Your task to perform on an android device: Go to Yahoo.com Image 0: 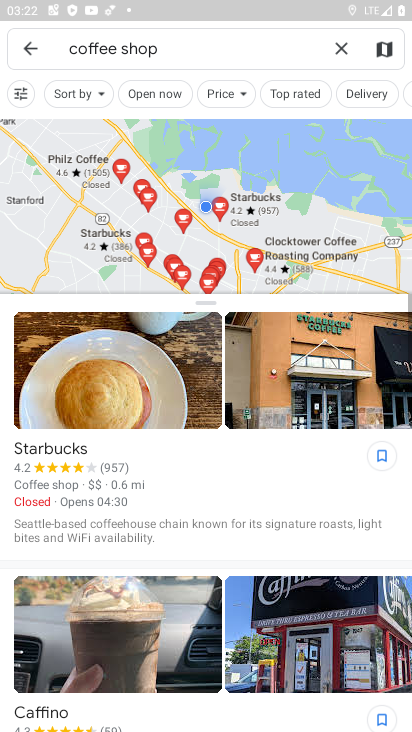
Step 0: press home button
Your task to perform on an android device: Go to Yahoo.com Image 1: 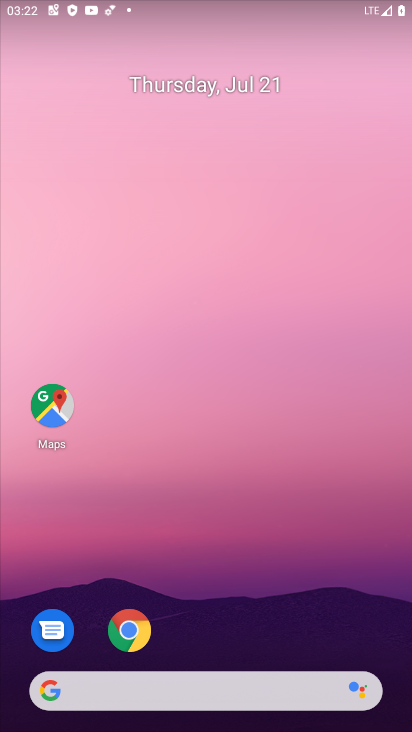
Step 1: click (133, 642)
Your task to perform on an android device: Go to Yahoo.com Image 2: 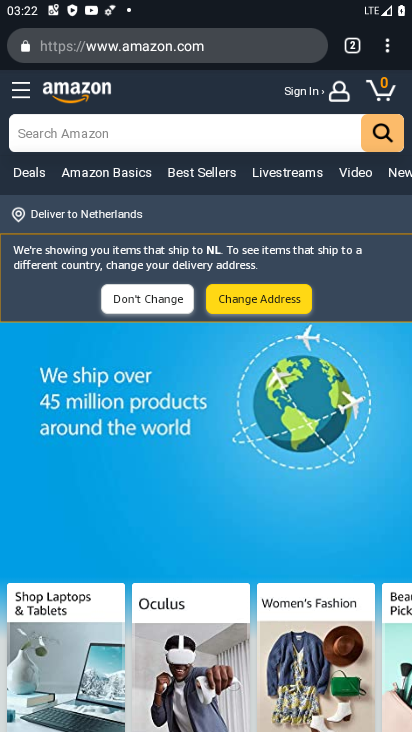
Step 2: click (348, 51)
Your task to perform on an android device: Go to Yahoo.com Image 3: 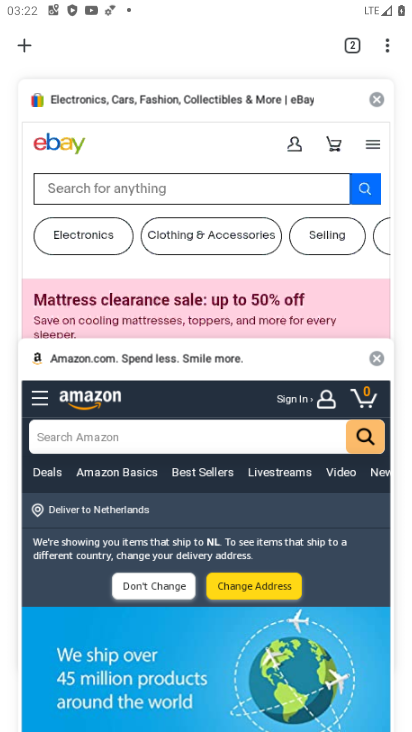
Step 3: click (22, 57)
Your task to perform on an android device: Go to Yahoo.com Image 4: 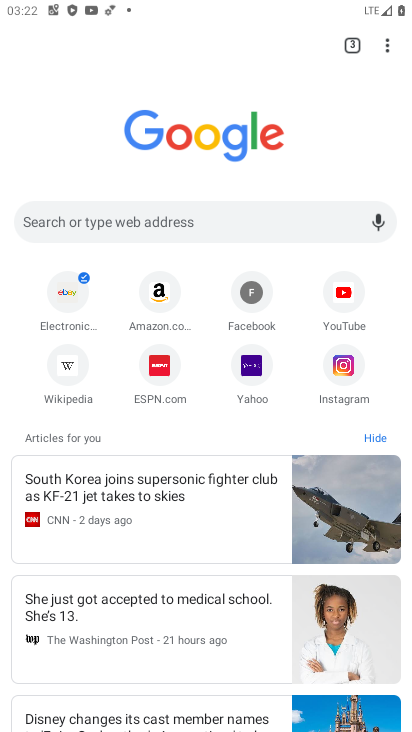
Step 4: click (253, 390)
Your task to perform on an android device: Go to Yahoo.com Image 5: 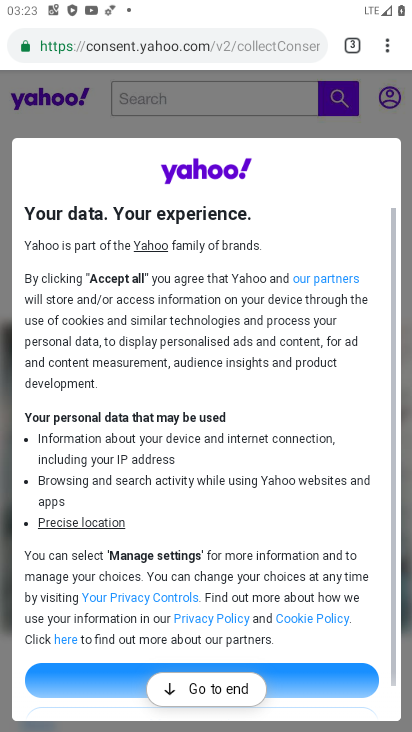
Step 5: task complete